Your task to perform on an android device: Open wifi settings Image 0: 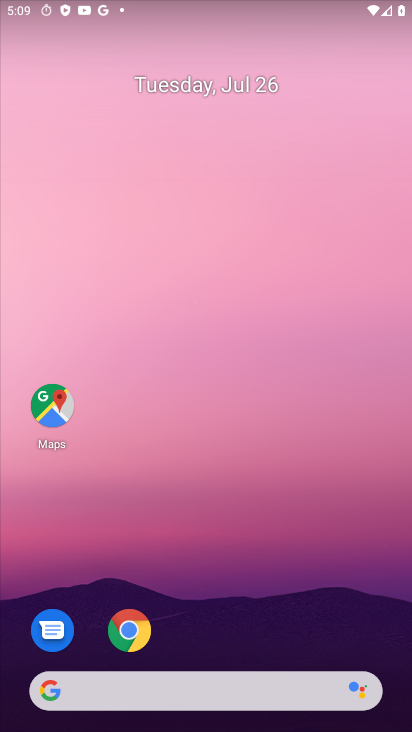
Step 0: drag from (315, 586) to (196, 21)
Your task to perform on an android device: Open wifi settings Image 1: 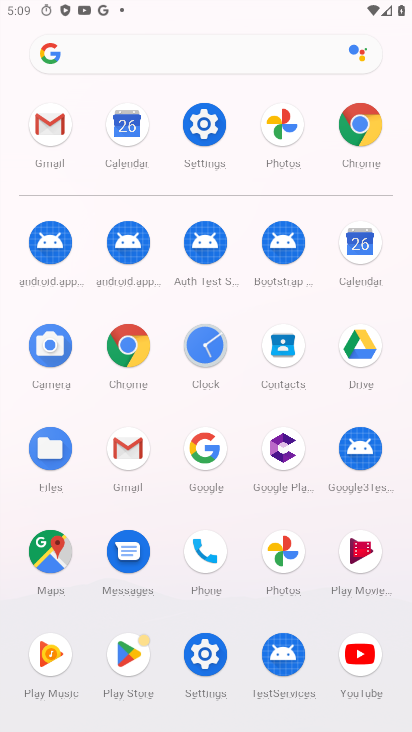
Step 1: click (218, 120)
Your task to perform on an android device: Open wifi settings Image 2: 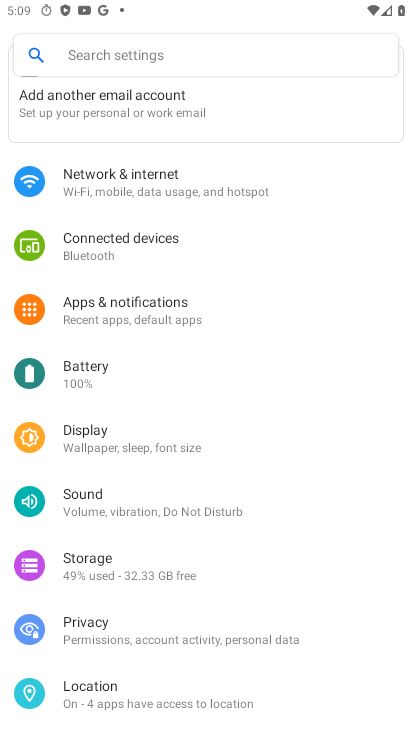
Step 2: click (169, 171)
Your task to perform on an android device: Open wifi settings Image 3: 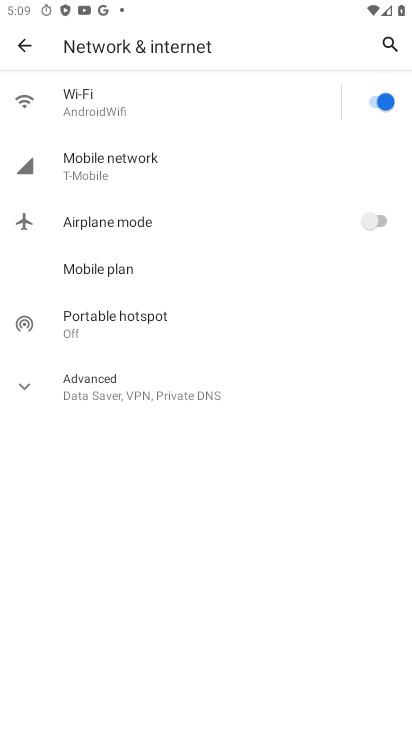
Step 3: click (213, 103)
Your task to perform on an android device: Open wifi settings Image 4: 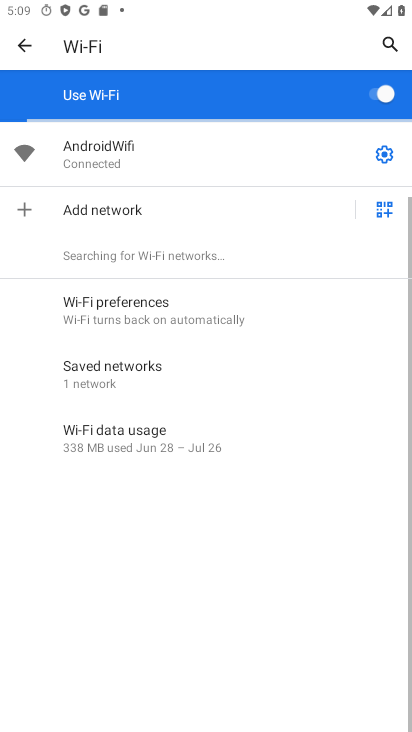
Step 4: click (390, 151)
Your task to perform on an android device: Open wifi settings Image 5: 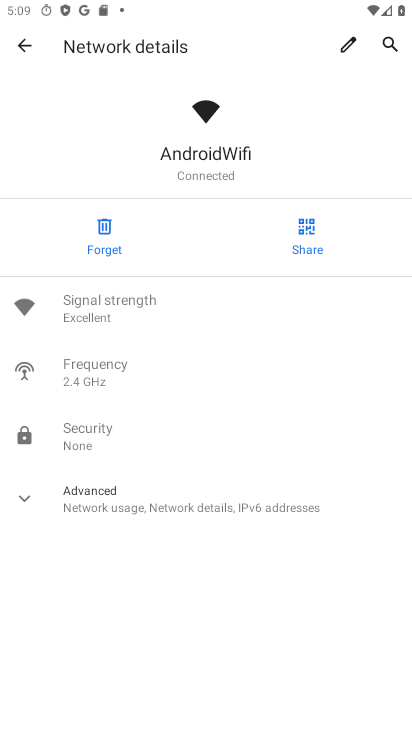
Step 5: task complete